Your task to perform on an android device: stop showing notifications on the lock screen Image 0: 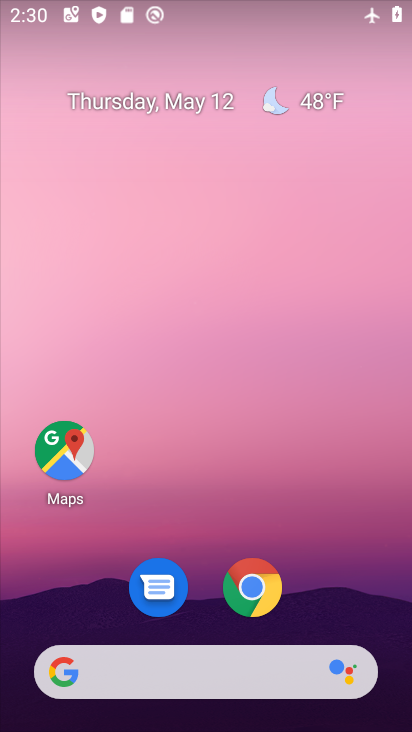
Step 0: drag from (237, 655) to (274, 66)
Your task to perform on an android device: stop showing notifications on the lock screen Image 1: 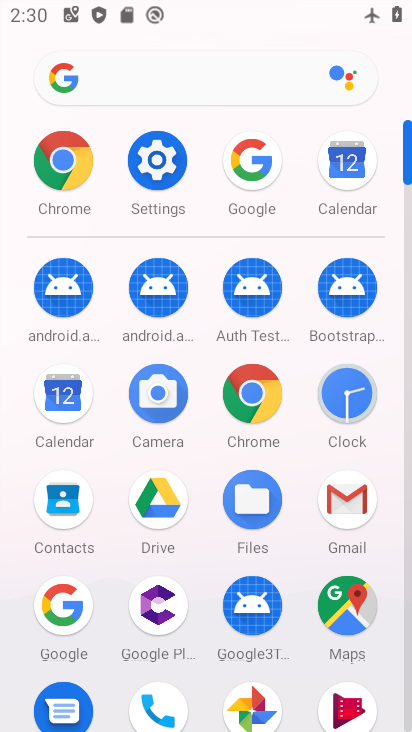
Step 1: click (163, 169)
Your task to perform on an android device: stop showing notifications on the lock screen Image 2: 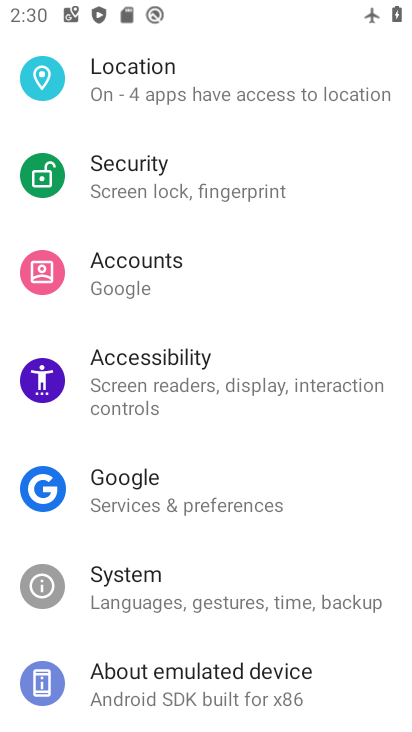
Step 2: drag from (230, 300) to (226, 468)
Your task to perform on an android device: stop showing notifications on the lock screen Image 3: 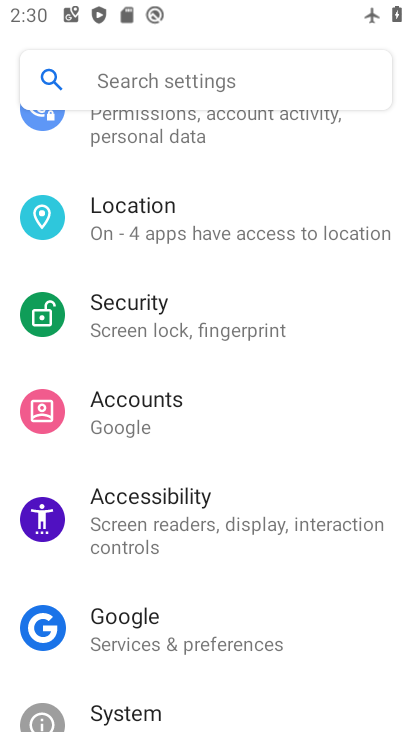
Step 3: drag from (246, 287) to (249, 613)
Your task to perform on an android device: stop showing notifications on the lock screen Image 4: 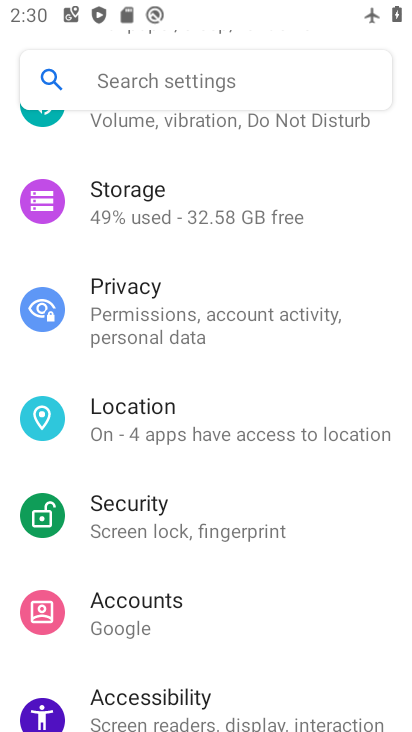
Step 4: drag from (269, 194) to (254, 524)
Your task to perform on an android device: stop showing notifications on the lock screen Image 5: 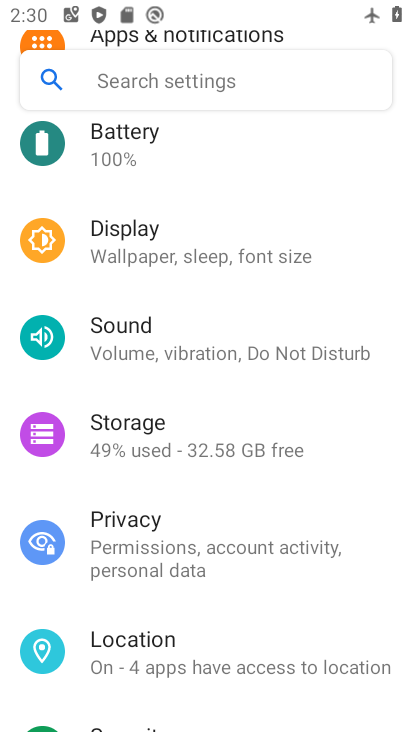
Step 5: drag from (276, 278) to (256, 606)
Your task to perform on an android device: stop showing notifications on the lock screen Image 6: 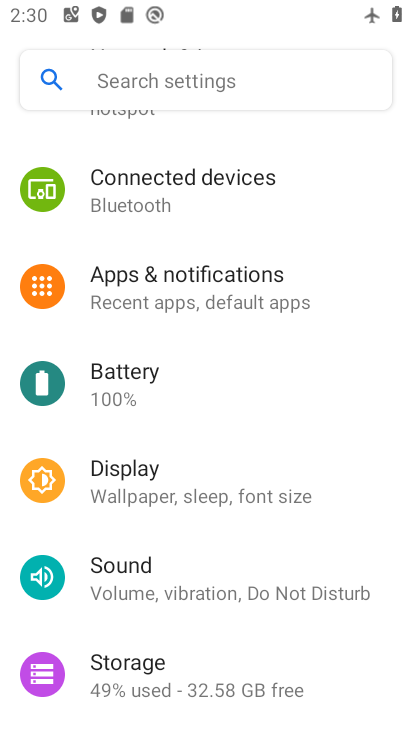
Step 6: click (272, 292)
Your task to perform on an android device: stop showing notifications on the lock screen Image 7: 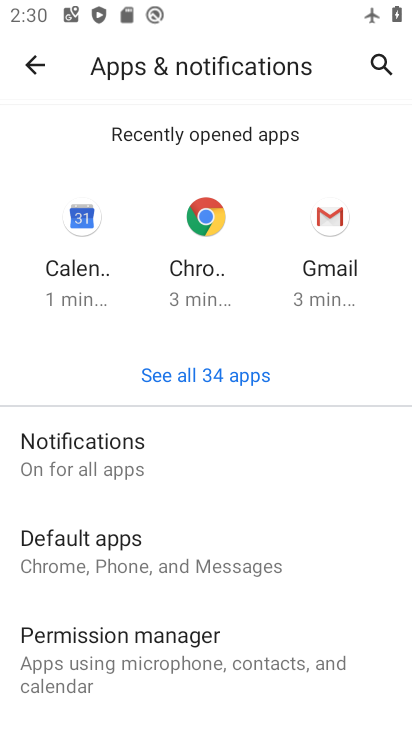
Step 7: click (179, 468)
Your task to perform on an android device: stop showing notifications on the lock screen Image 8: 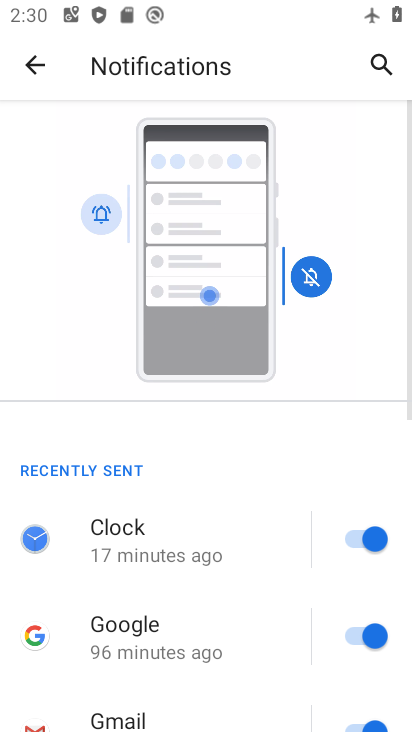
Step 8: drag from (204, 523) to (271, 149)
Your task to perform on an android device: stop showing notifications on the lock screen Image 9: 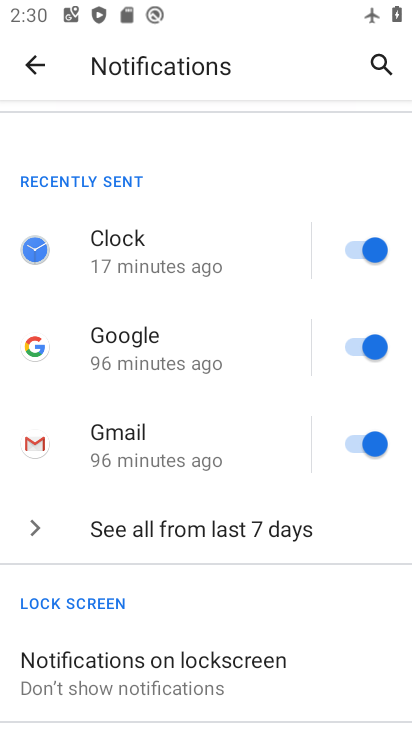
Step 9: click (186, 671)
Your task to perform on an android device: stop showing notifications on the lock screen Image 10: 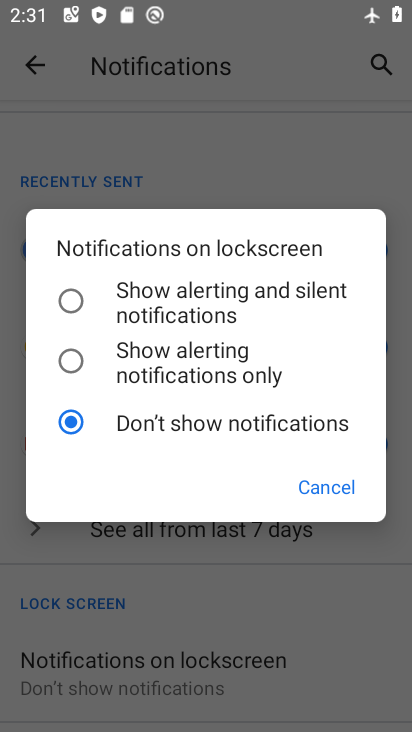
Step 10: task complete